Your task to perform on an android device: Open display settings Image 0: 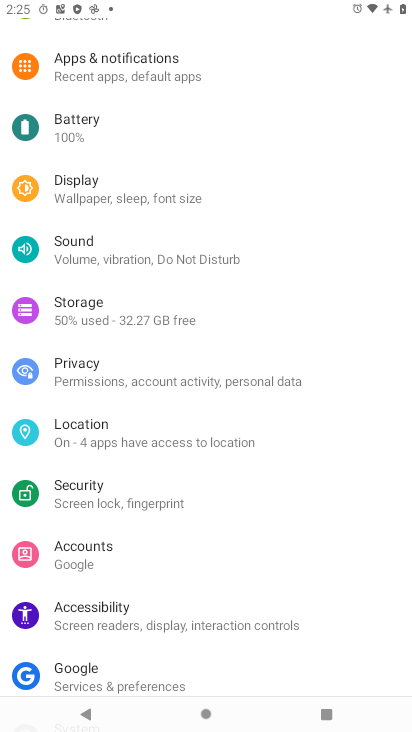
Step 0: press home button
Your task to perform on an android device: Open display settings Image 1: 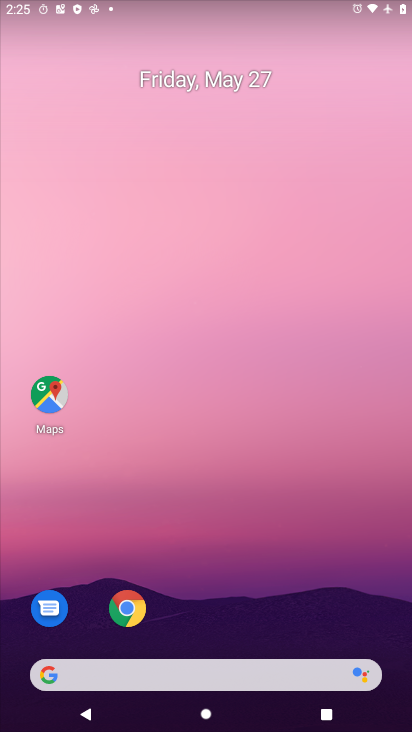
Step 1: drag from (227, 669) to (280, 234)
Your task to perform on an android device: Open display settings Image 2: 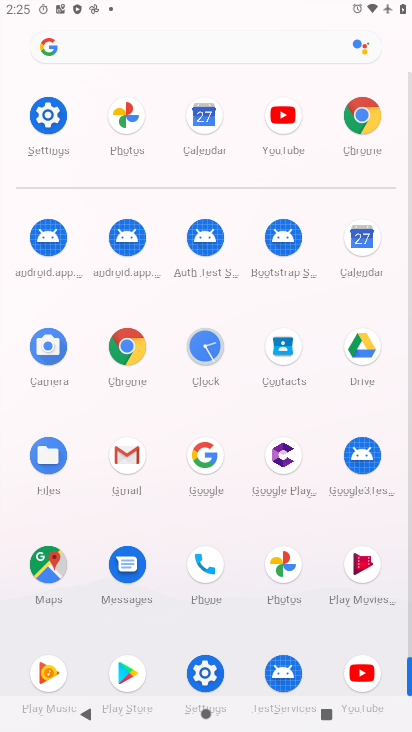
Step 2: click (54, 118)
Your task to perform on an android device: Open display settings Image 3: 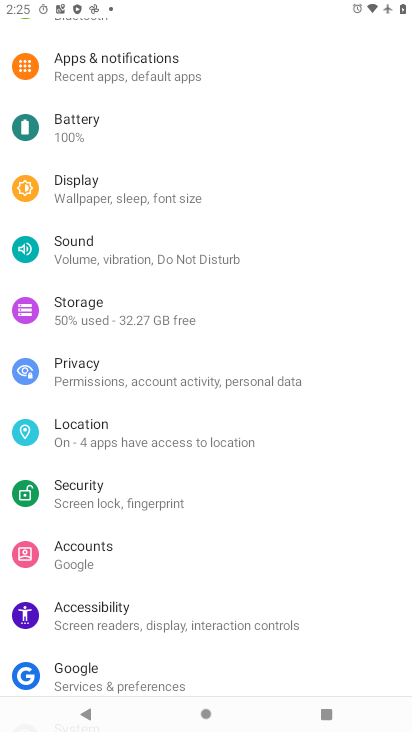
Step 3: click (84, 195)
Your task to perform on an android device: Open display settings Image 4: 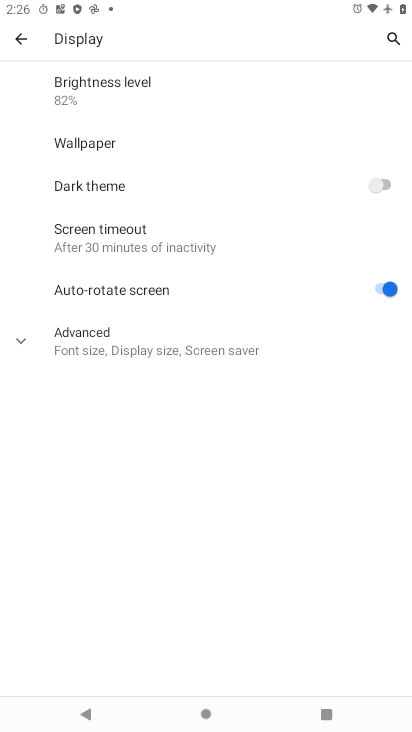
Step 4: task complete